Your task to perform on an android device: Is it going to rain tomorrow? Image 0: 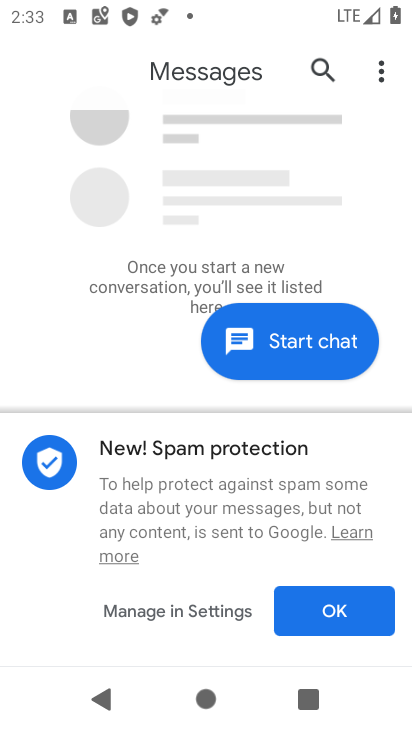
Step 0: press home button
Your task to perform on an android device: Is it going to rain tomorrow? Image 1: 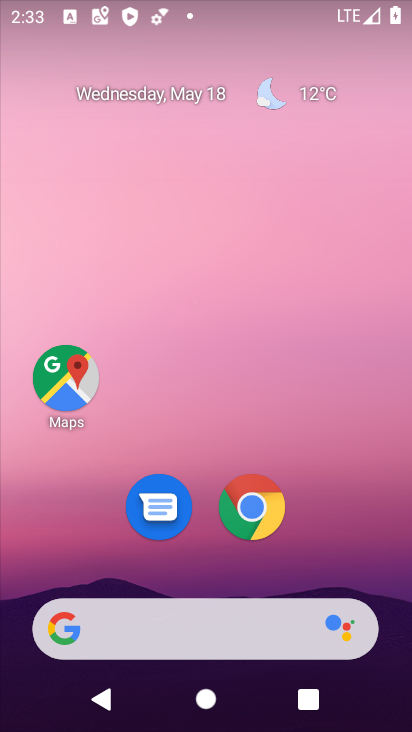
Step 1: click (299, 89)
Your task to perform on an android device: Is it going to rain tomorrow? Image 2: 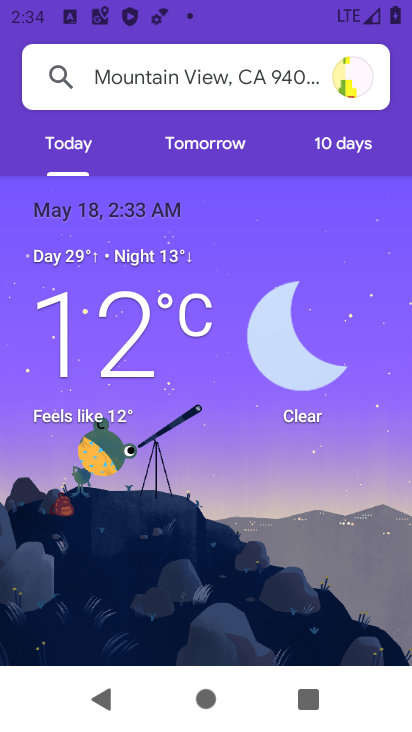
Step 2: click (214, 142)
Your task to perform on an android device: Is it going to rain tomorrow? Image 3: 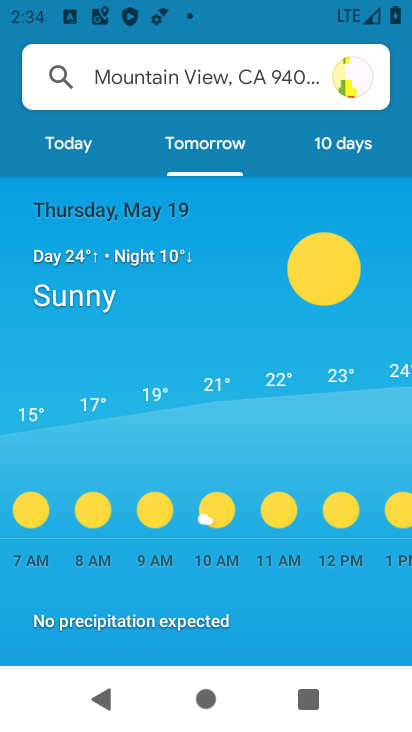
Step 3: task complete